Your task to perform on an android device: turn on airplane mode Image 0: 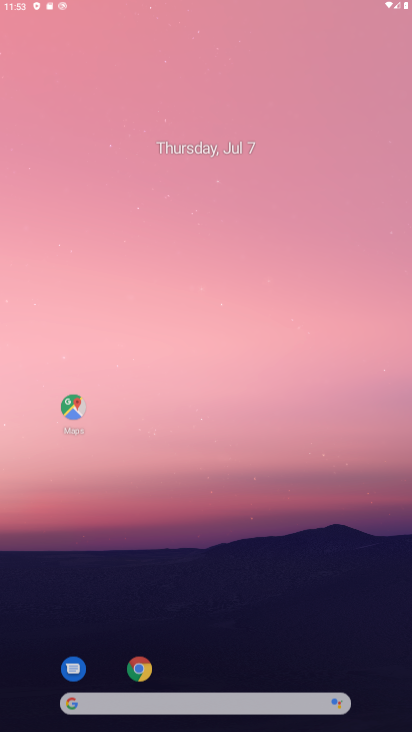
Step 0: click (308, 181)
Your task to perform on an android device: turn on airplane mode Image 1: 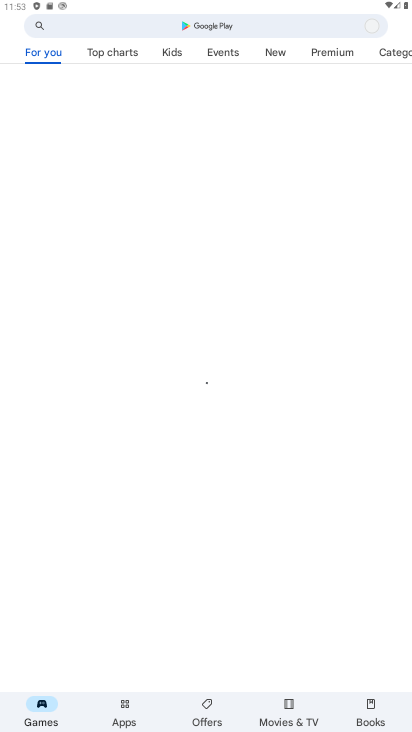
Step 1: press home button
Your task to perform on an android device: turn on airplane mode Image 2: 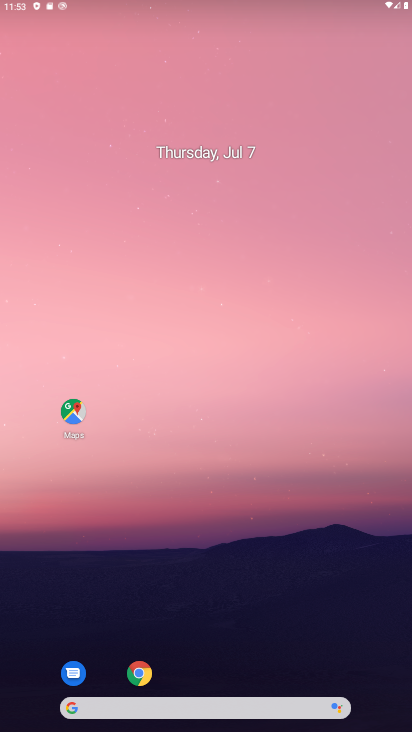
Step 2: drag from (201, 674) to (313, 170)
Your task to perform on an android device: turn on airplane mode Image 3: 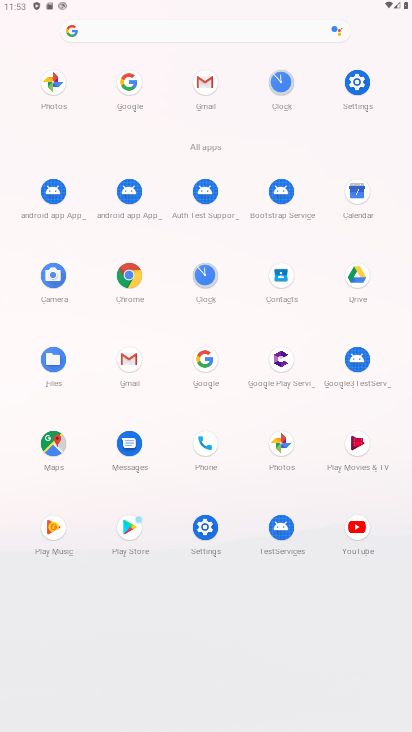
Step 3: click (210, 534)
Your task to perform on an android device: turn on airplane mode Image 4: 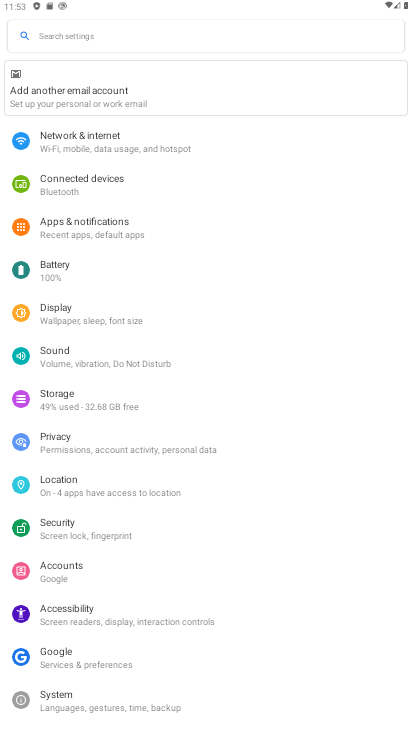
Step 4: click (170, 144)
Your task to perform on an android device: turn on airplane mode Image 5: 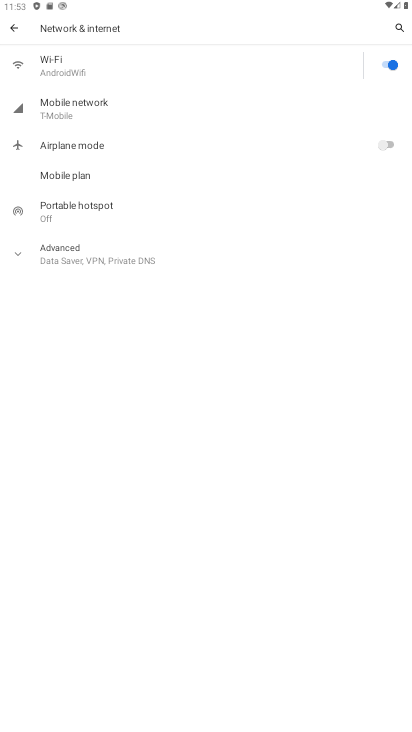
Step 5: click (395, 141)
Your task to perform on an android device: turn on airplane mode Image 6: 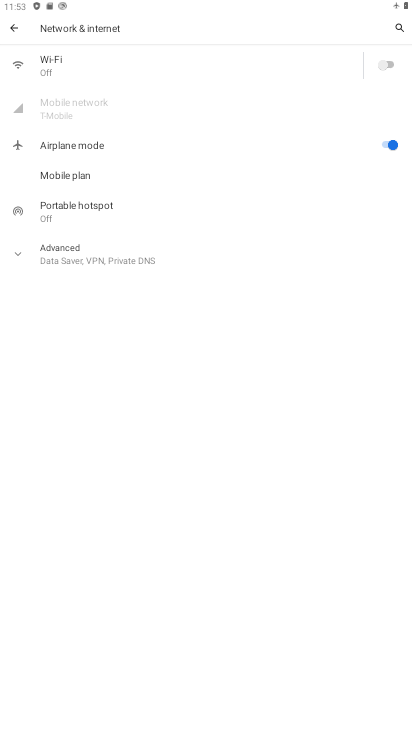
Step 6: task complete